Your task to perform on an android device: turn off location history Image 0: 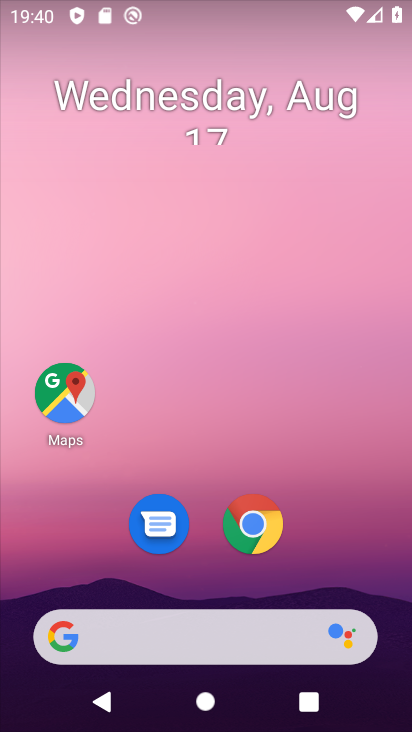
Step 0: drag from (307, 550) to (352, 42)
Your task to perform on an android device: turn off location history Image 1: 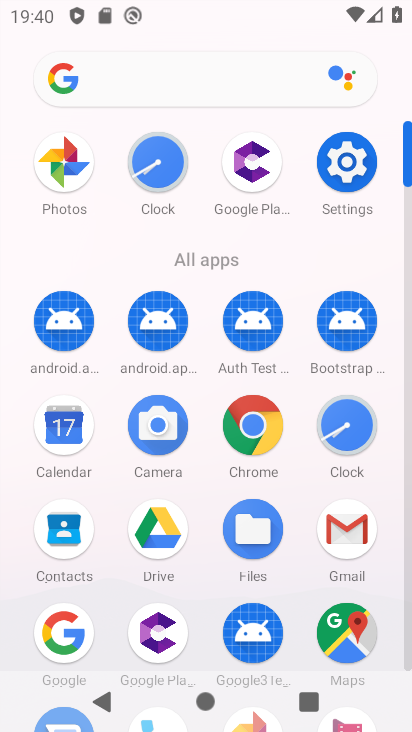
Step 1: click (353, 167)
Your task to perform on an android device: turn off location history Image 2: 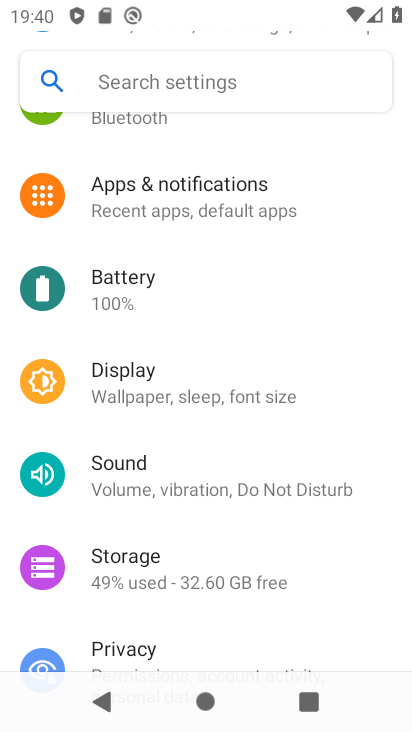
Step 2: drag from (196, 456) to (231, 123)
Your task to perform on an android device: turn off location history Image 3: 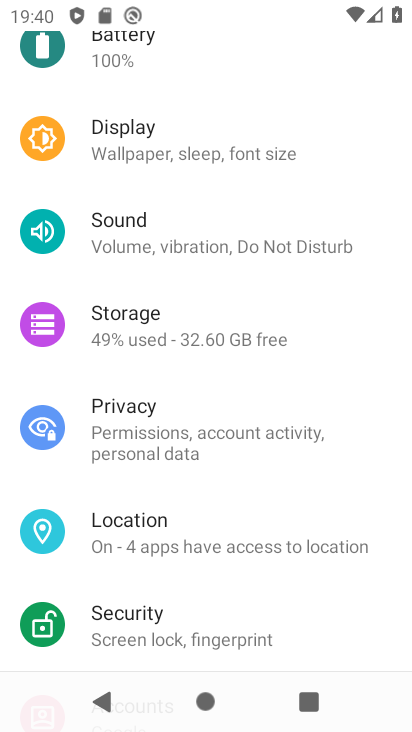
Step 3: click (177, 537)
Your task to perform on an android device: turn off location history Image 4: 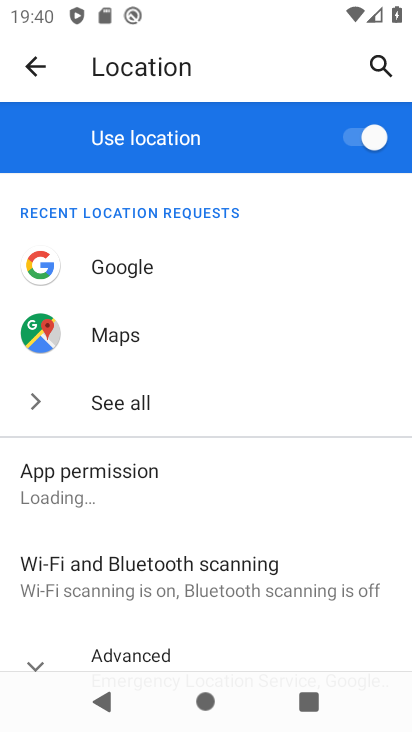
Step 4: drag from (181, 506) to (214, 133)
Your task to perform on an android device: turn off location history Image 5: 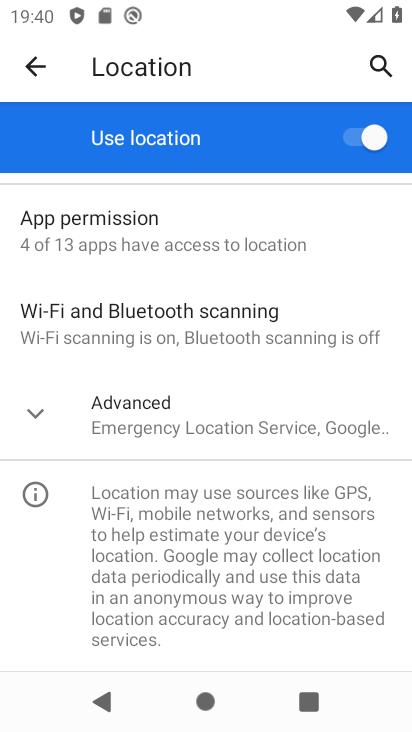
Step 5: click (32, 408)
Your task to perform on an android device: turn off location history Image 6: 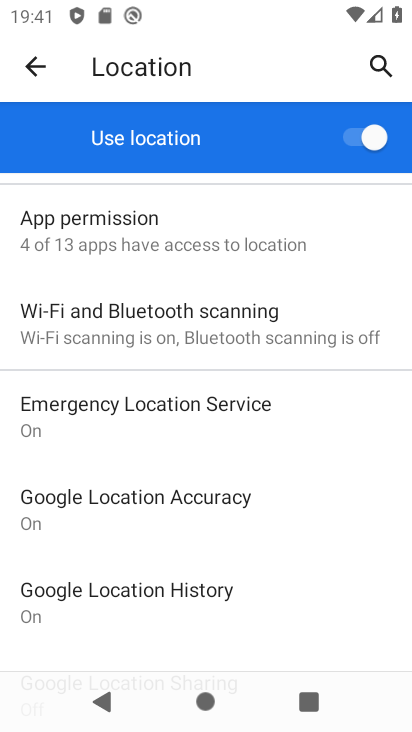
Step 6: drag from (139, 558) to (153, 325)
Your task to perform on an android device: turn off location history Image 7: 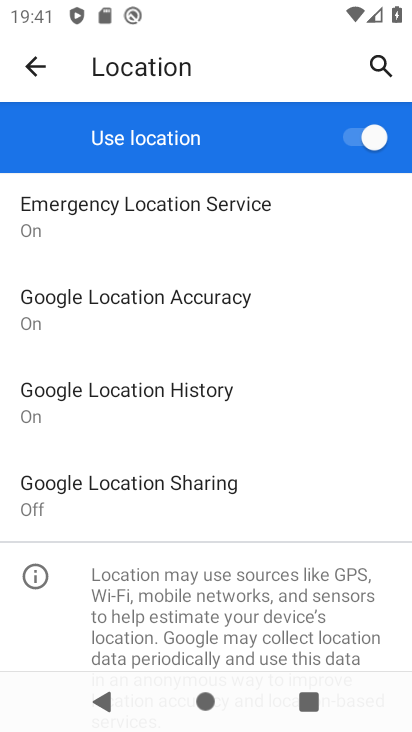
Step 7: click (147, 399)
Your task to perform on an android device: turn off location history Image 8: 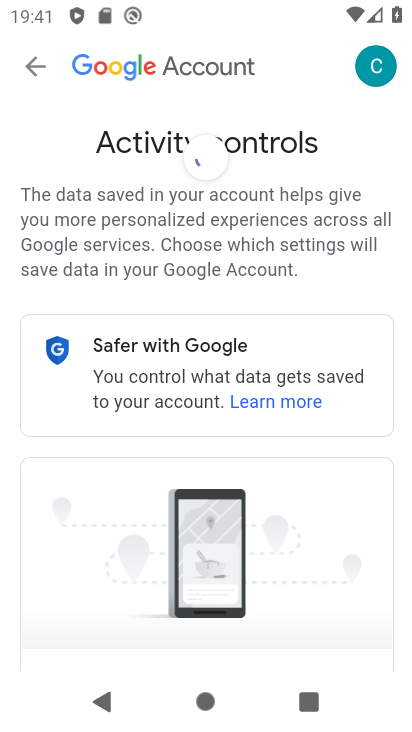
Step 8: task complete